Your task to perform on an android device: Show me recent news Image 0: 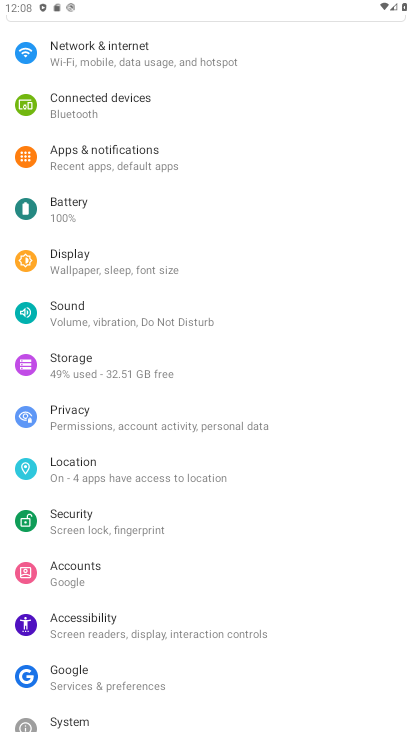
Step 0: press home button
Your task to perform on an android device: Show me recent news Image 1: 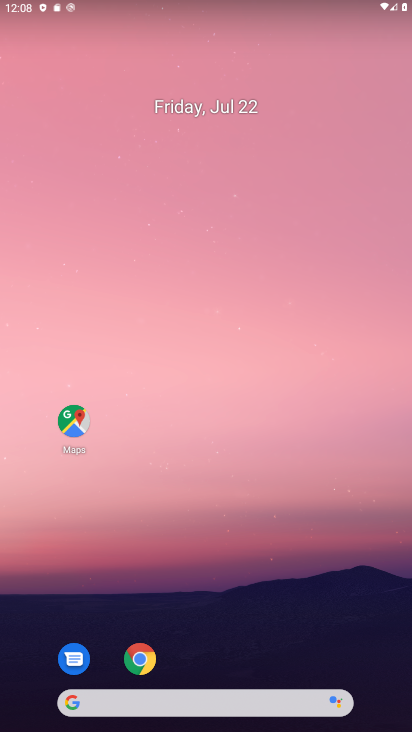
Step 1: click (209, 698)
Your task to perform on an android device: Show me recent news Image 2: 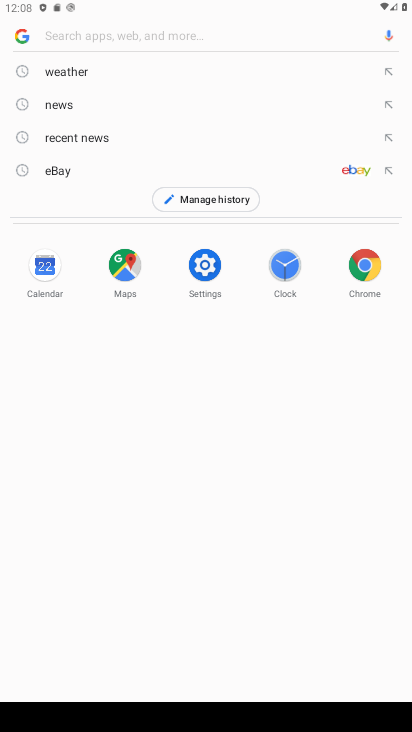
Step 2: click (66, 108)
Your task to perform on an android device: Show me recent news Image 3: 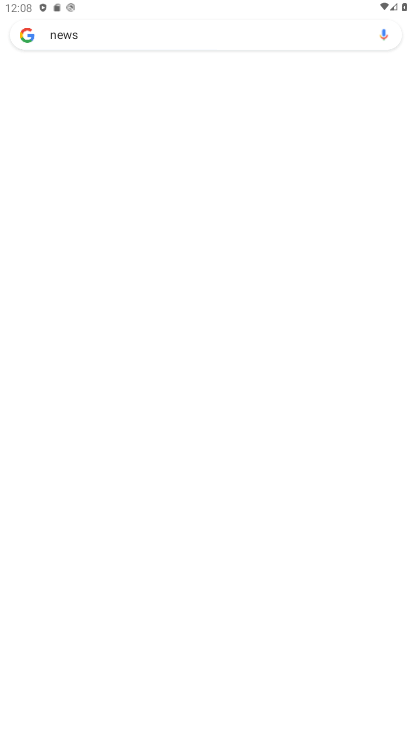
Step 3: task complete